Your task to perform on an android device: change alarm snooze length Image 0: 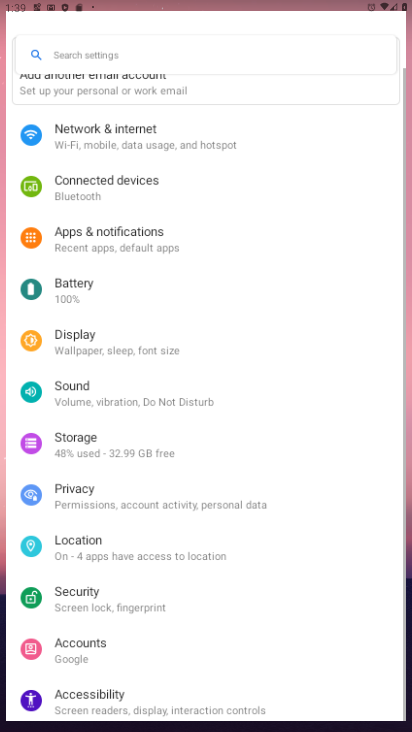
Step 0: drag from (221, 725) to (173, 152)
Your task to perform on an android device: change alarm snooze length Image 1: 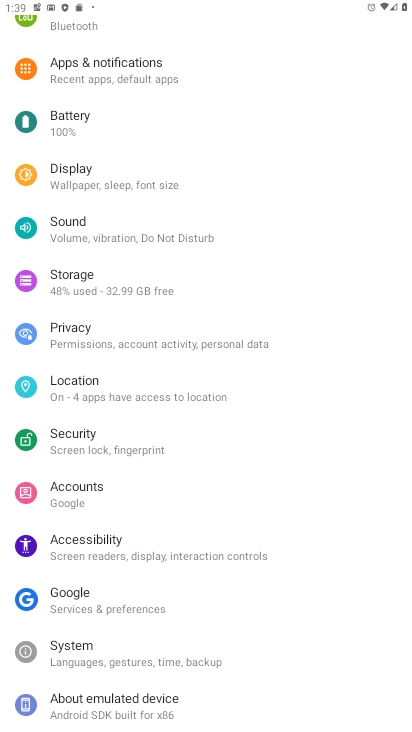
Step 1: press home button
Your task to perform on an android device: change alarm snooze length Image 2: 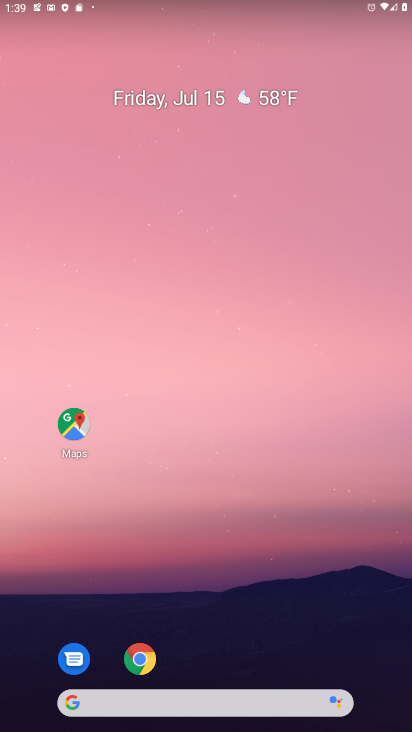
Step 2: drag from (211, 720) to (223, 243)
Your task to perform on an android device: change alarm snooze length Image 3: 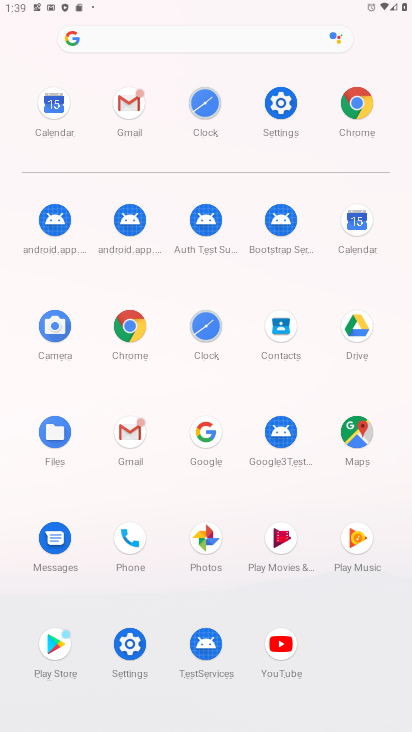
Step 3: click (208, 337)
Your task to perform on an android device: change alarm snooze length Image 4: 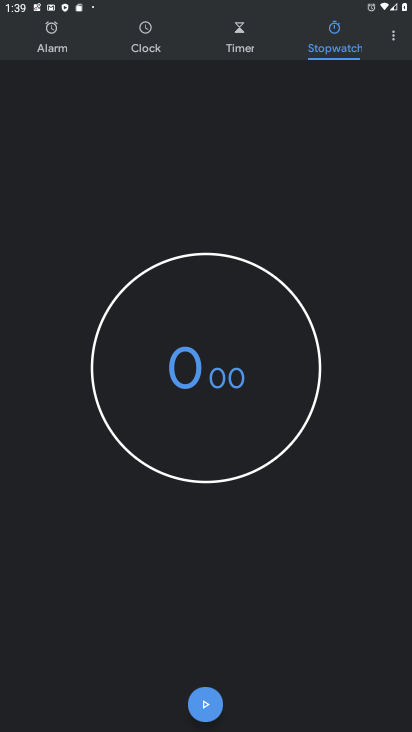
Step 4: click (394, 40)
Your task to perform on an android device: change alarm snooze length Image 5: 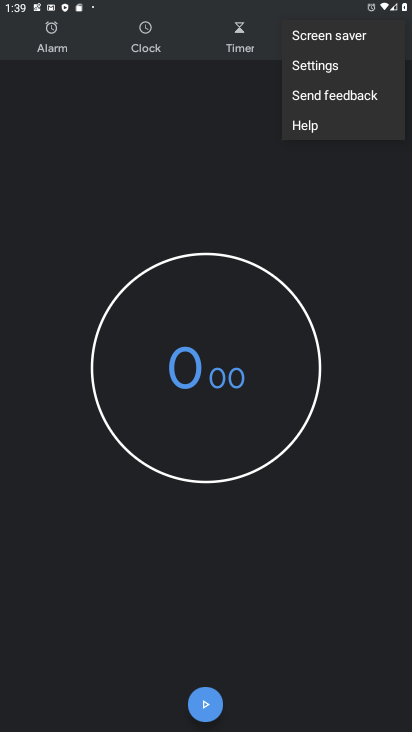
Step 5: click (314, 67)
Your task to perform on an android device: change alarm snooze length Image 6: 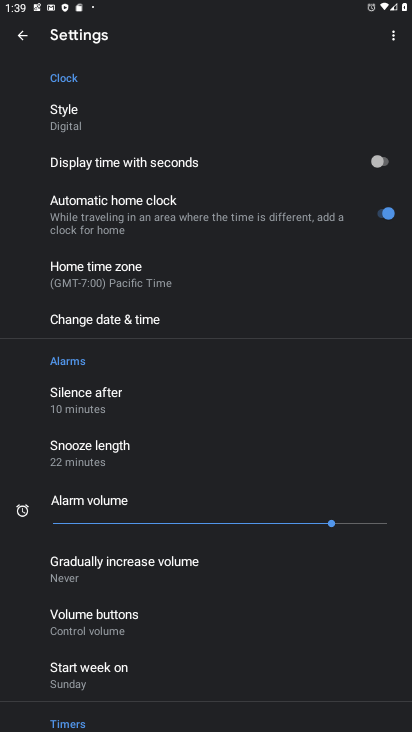
Step 6: click (82, 450)
Your task to perform on an android device: change alarm snooze length Image 7: 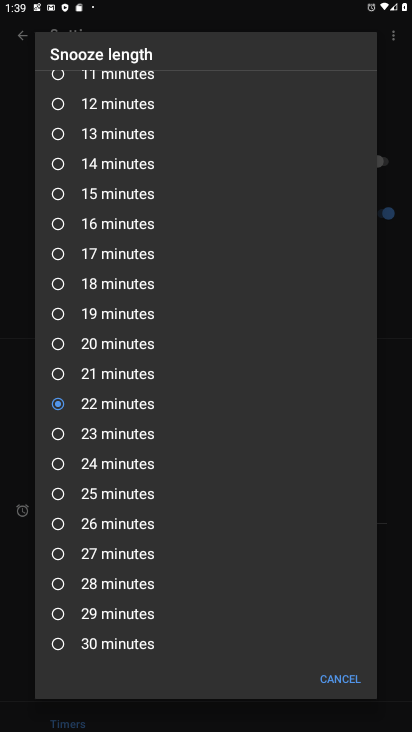
Step 7: click (55, 551)
Your task to perform on an android device: change alarm snooze length Image 8: 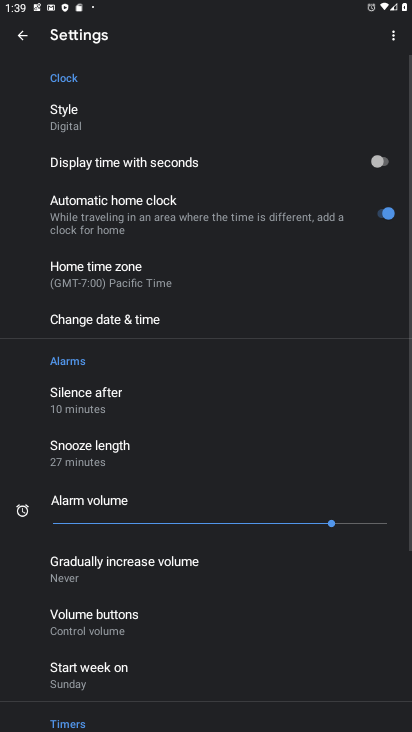
Step 8: task complete